Your task to perform on an android device: open app "Pinterest" (install if not already installed) Image 0: 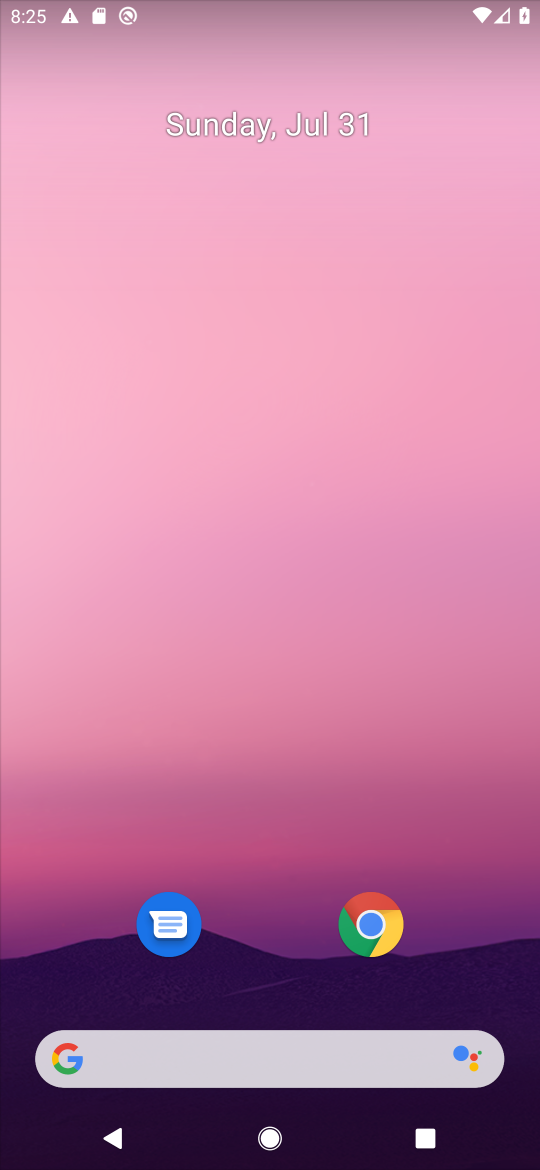
Step 0: drag from (253, 1038) to (356, 372)
Your task to perform on an android device: open app "Pinterest" (install if not already installed) Image 1: 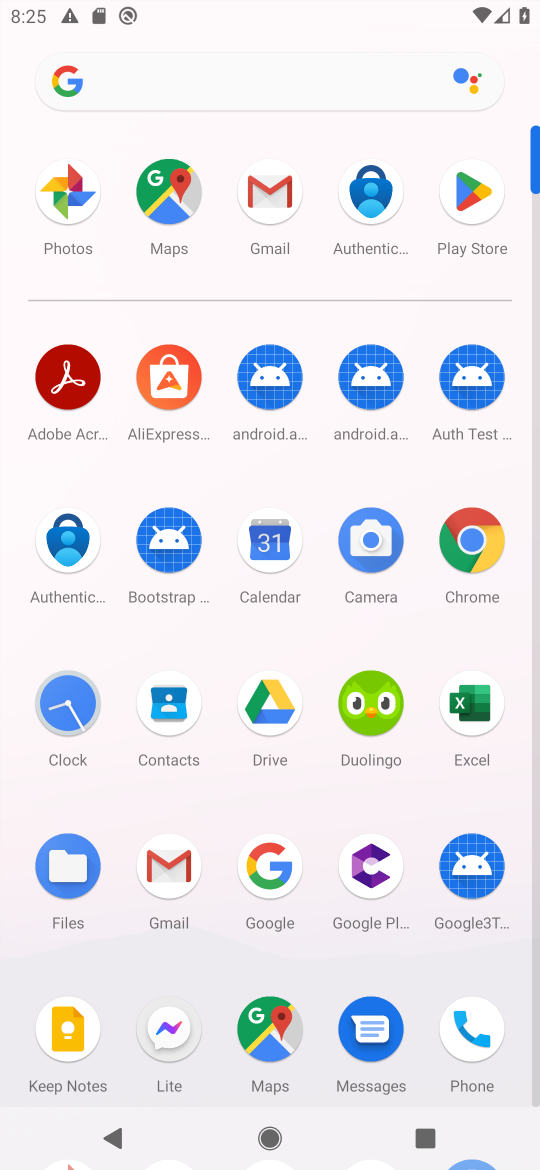
Step 1: click (483, 190)
Your task to perform on an android device: open app "Pinterest" (install if not already installed) Image 2: 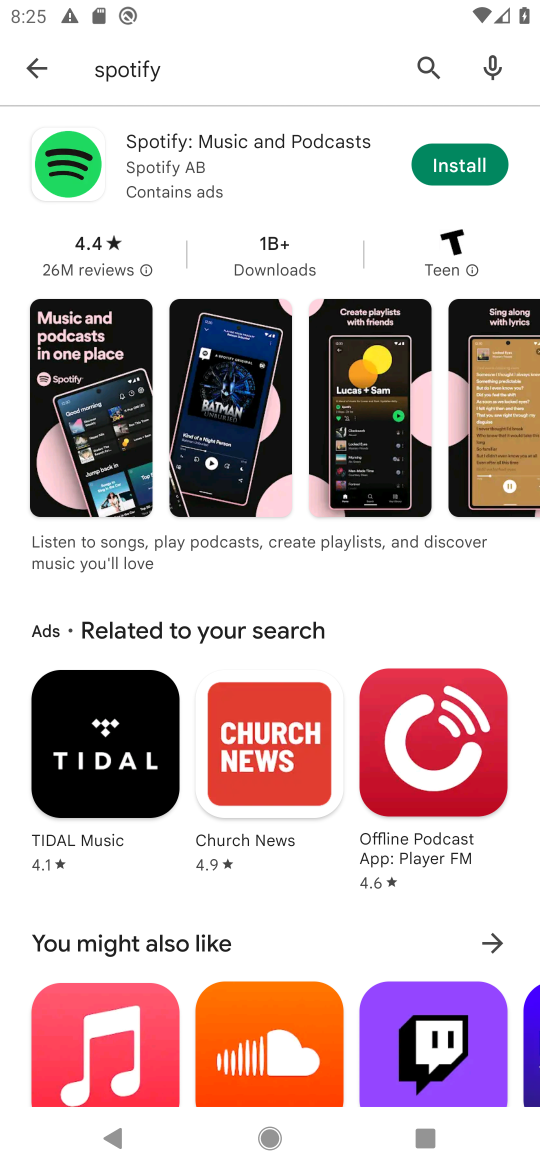
Step 2: click (432, 67)
Your task to perform on an android device: open app "Pinterest" (install if not already installed) Image 3: 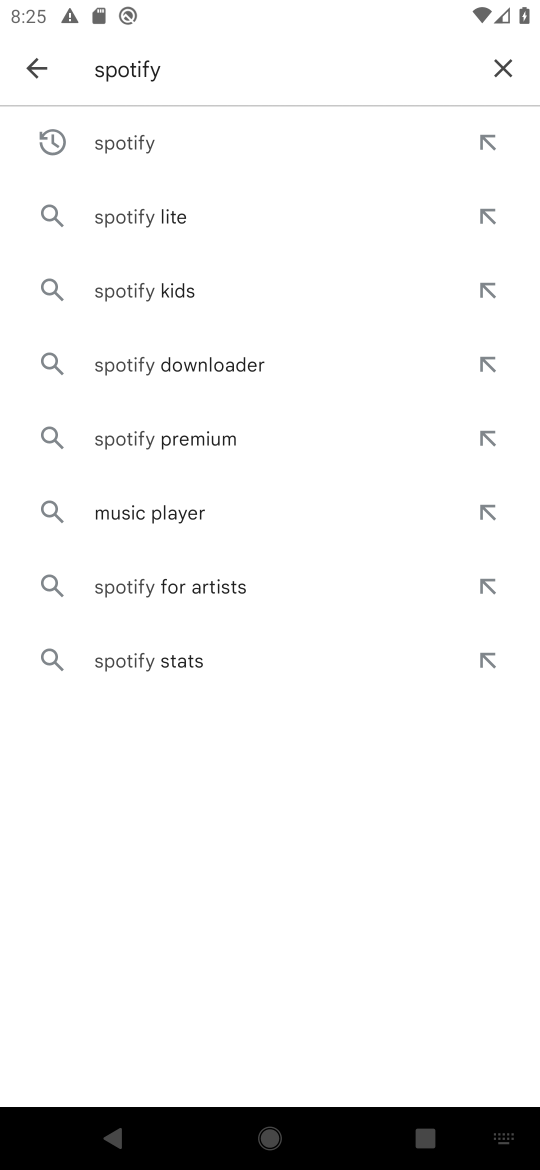
Step 3: click (502, 77)
Your task to perform on an android device: open app "Pinterest" (install if not already installed) Image 4: 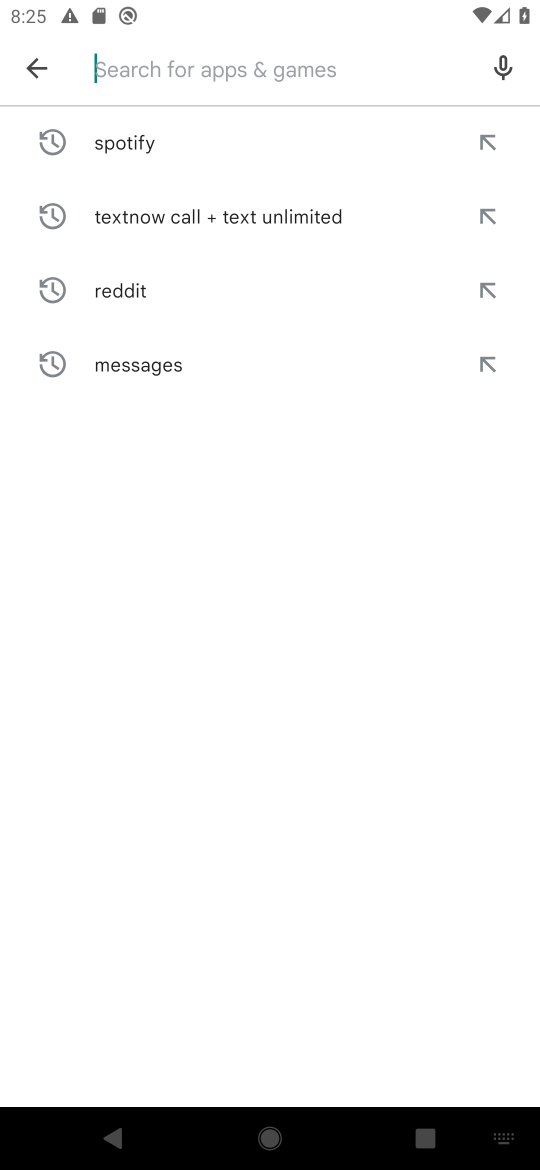
Step 4: type "Pinterest"
Your task to perform on an android device: open app "Pinterest" (install if not already installed) Image 5: 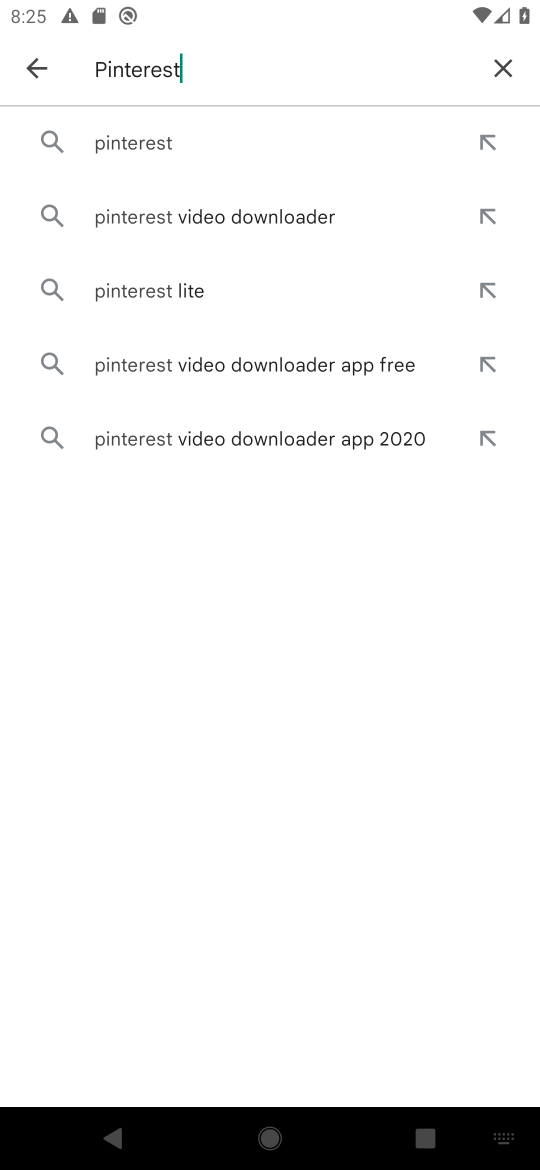
Step 5: click (162, 146)
Your task to perform on an android device: open app "Pinterest" (install if not already installed) Image 6: 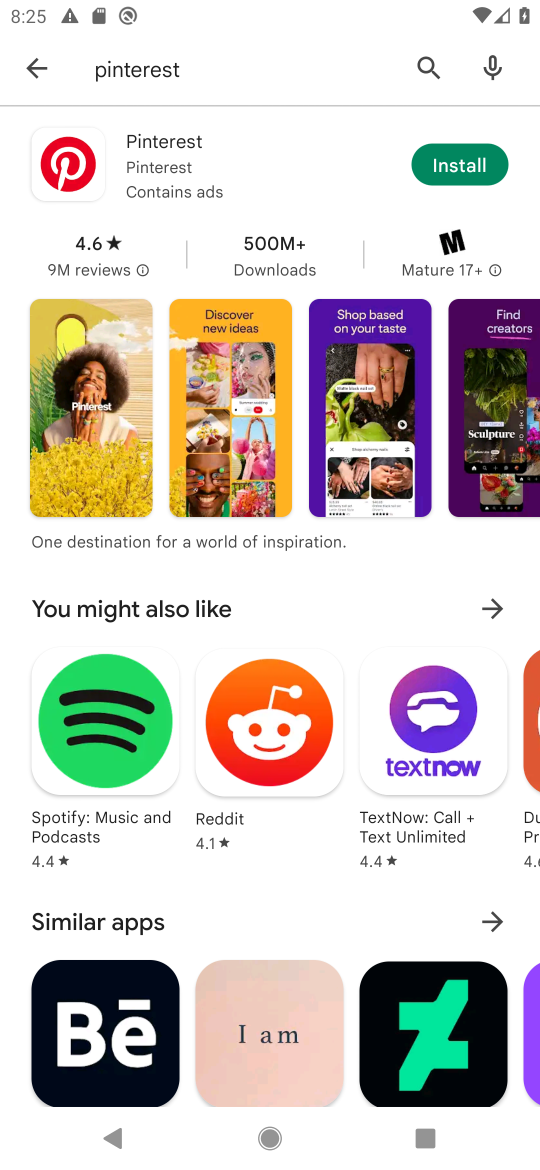
Step 6: click (490, 153)
Your task to perform on an android device: open app "Pinterest" (install if not already installed) Image 7: 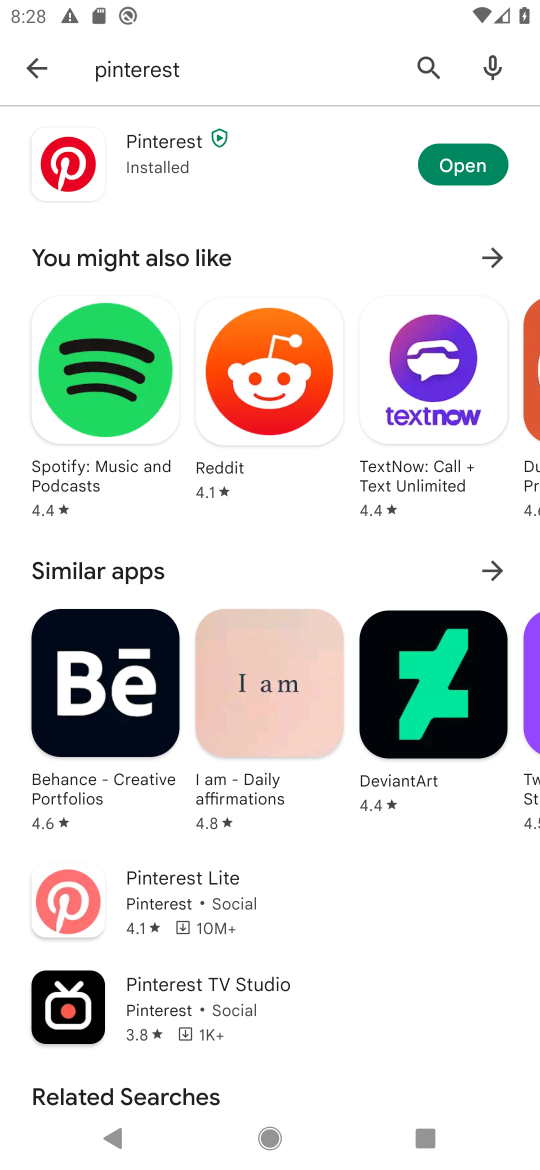
Step 7: click (469, 168)
Your task to perform on an android device: open app "Pinterest" (install if not already installed) Image 8: 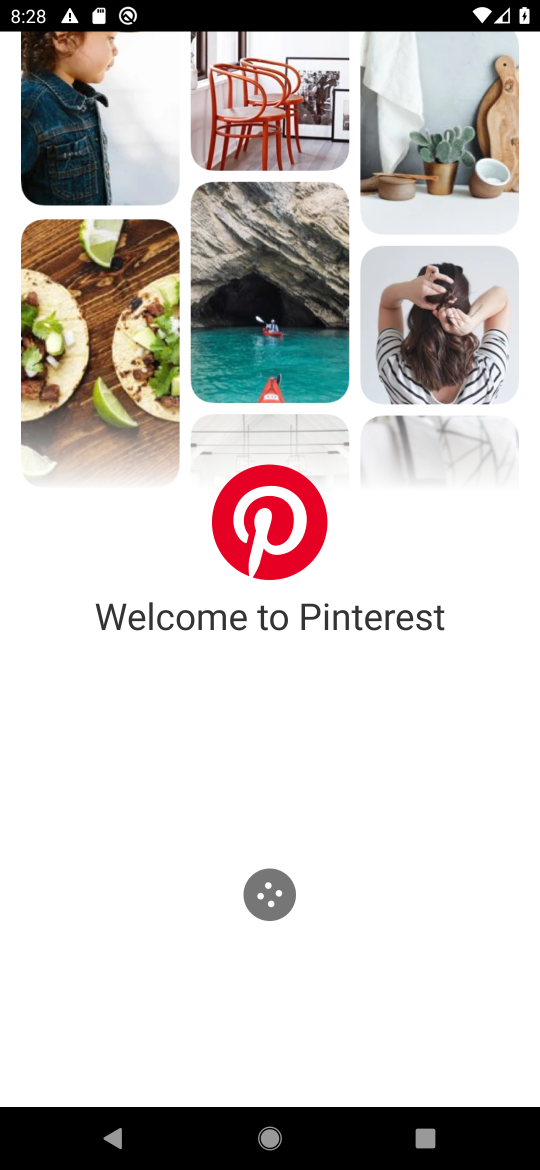
Step 8: task complete